Your task to perform on an android device: Turn on the flashlight Image 0: 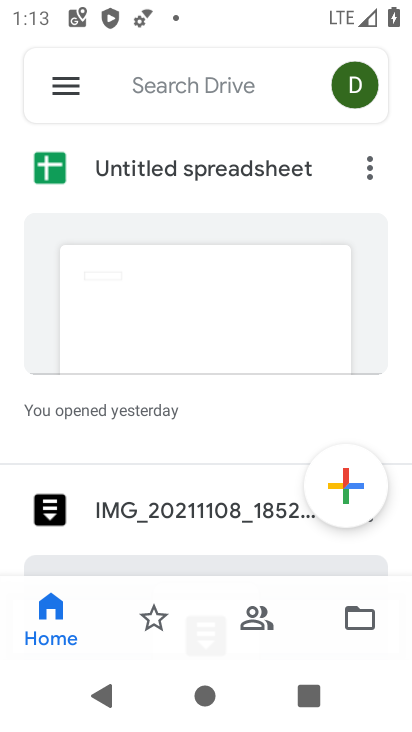
Step 0: press home button
Your task to perform on an android device: Turn on the flashlight Image 1: 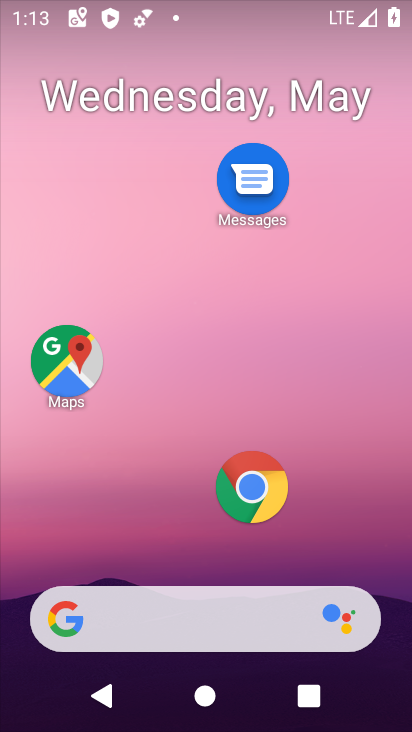
Step 1: drag from (186, 537) to (283, 26)
Your task to perform on an android device: Turn on the flashlight Image 2: 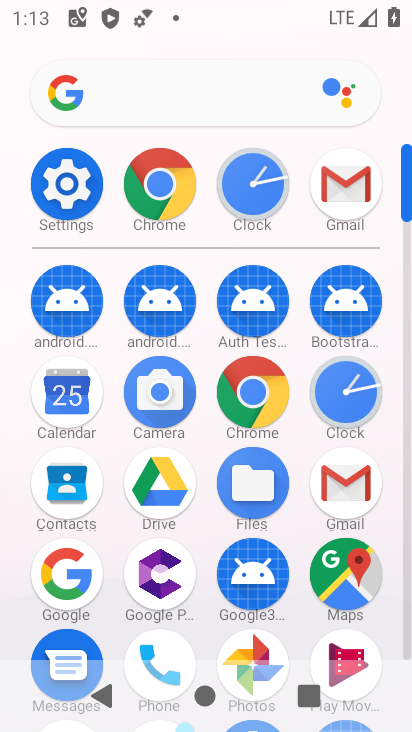
Step 2: click (76, 198)
Your task to perform on an android device: Turn on the flashlight Image 3: 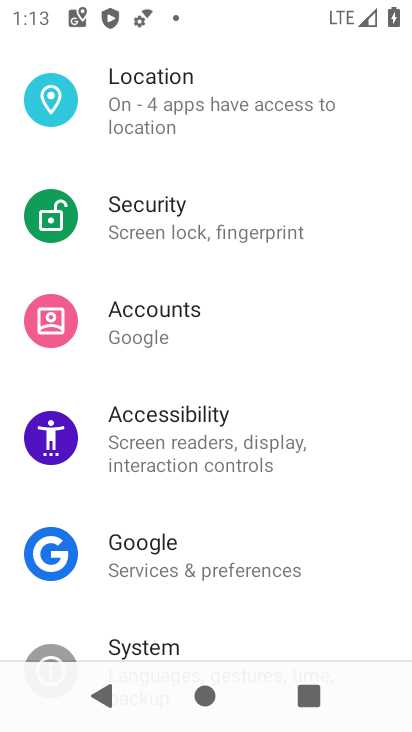
Step 3: drag from (192, 107) to (193, 501)
Your task to perform on an android device: Turn on the flashlight Image 4: 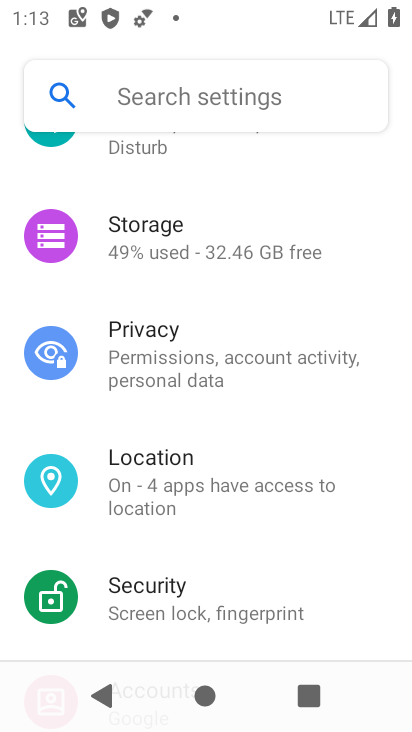
Step 4: click (229, 105)
Your task to perform on an android device: Turn on the flashlight Image 5: 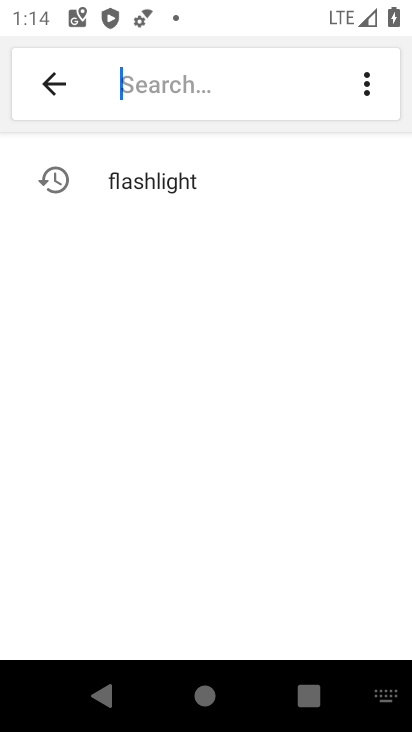
Step 5: type "flashlight"
Your task to perform on an android device: Turn on the flashlight Image 6: 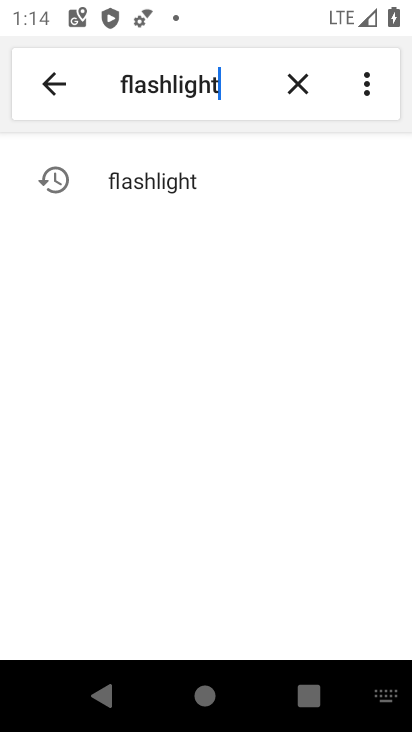
Step 6: click (210, 186)
Your task to perform on an android device: Turn on the flashlight Image 7: 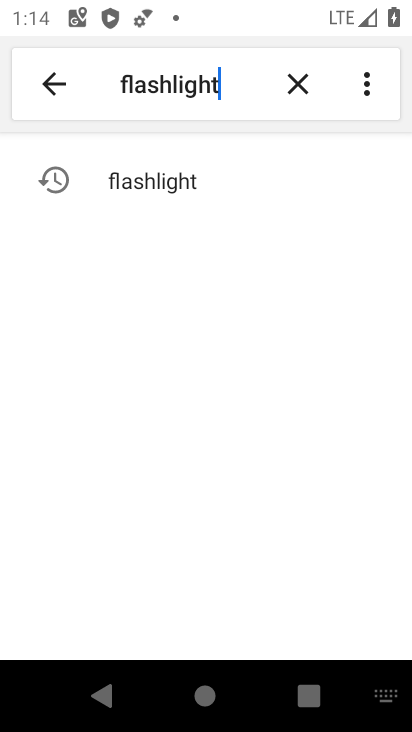
Step 7: click (214, 179)
Your task to perform on an android device: Turn on the flashlight Image 8: 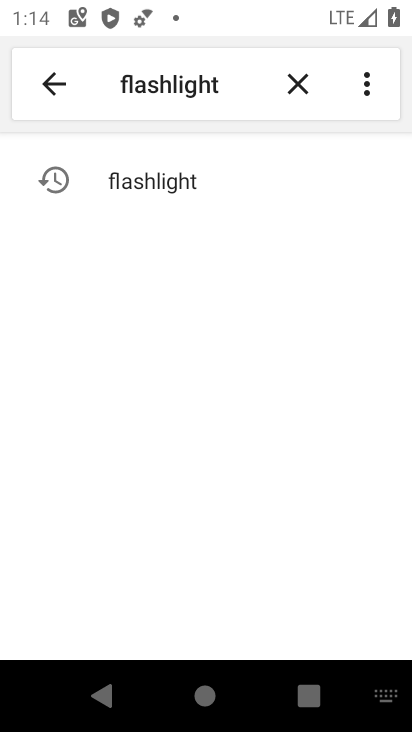
Step 8: task complete